Your task to perform on an android device: Do I have any events this weekend? Image 0: 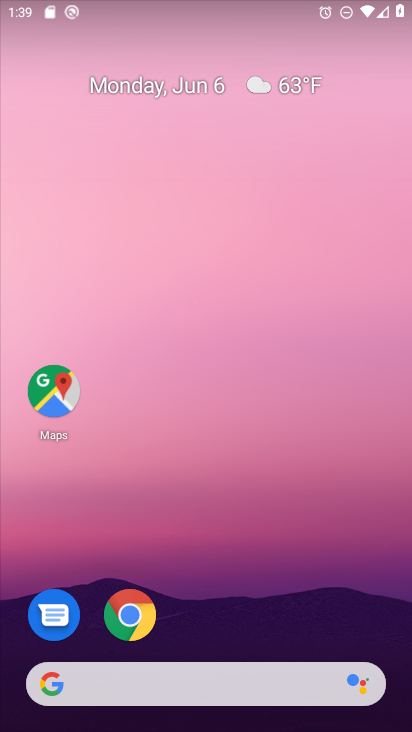
Step 0: drag from (279, 624) to (245, 126)
Your task to perform on an android device: Do I have any events this weekend? Image 1: 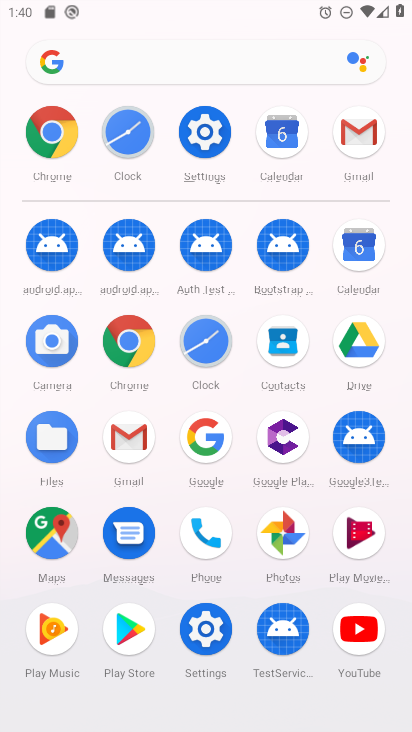
Step 1: click (364, 247)
Your task to perform on an android device: Do I have any events this weekend? Image 2: 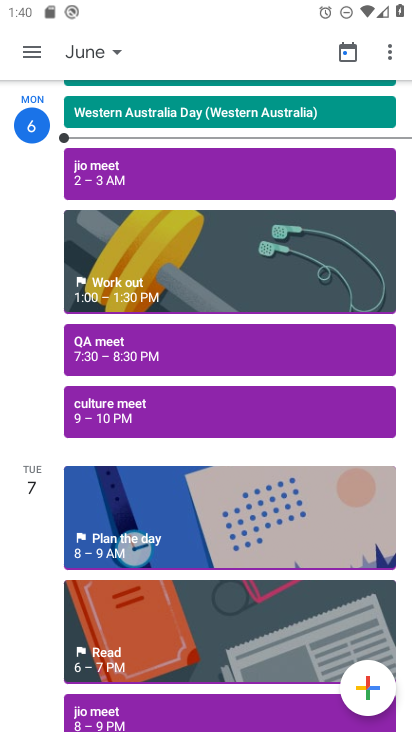
Step 2: click (96, 41)
Your task to perform on an android device: Do I have any events this weekend? Image 3: 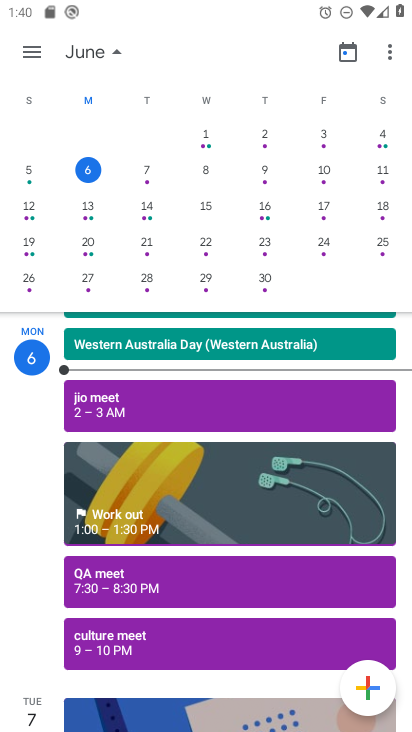
Step 3: click (374, 169)
Your task to perform on an android device: Do I have any events this weekend? Image 4: 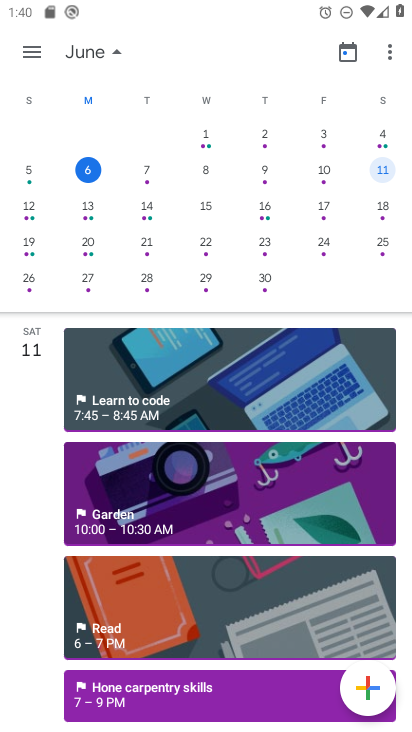
Step 4: task complete